Your task to perform on an android device: Find coffee shops on Maps Image 0: 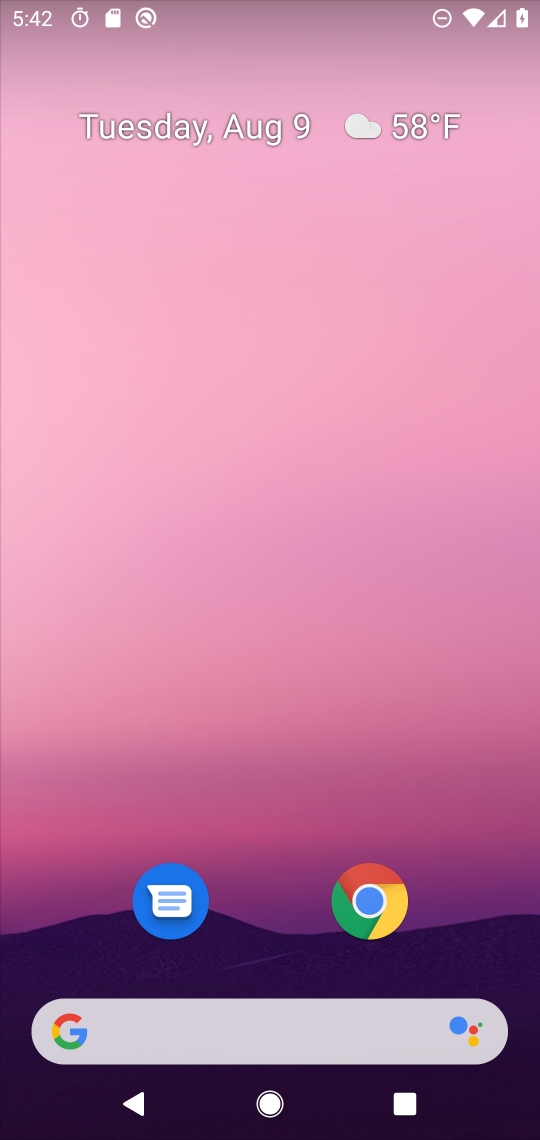
Step 0: press home button
Your task to perform on an android device: Find coffee shops on Maps Image 1: 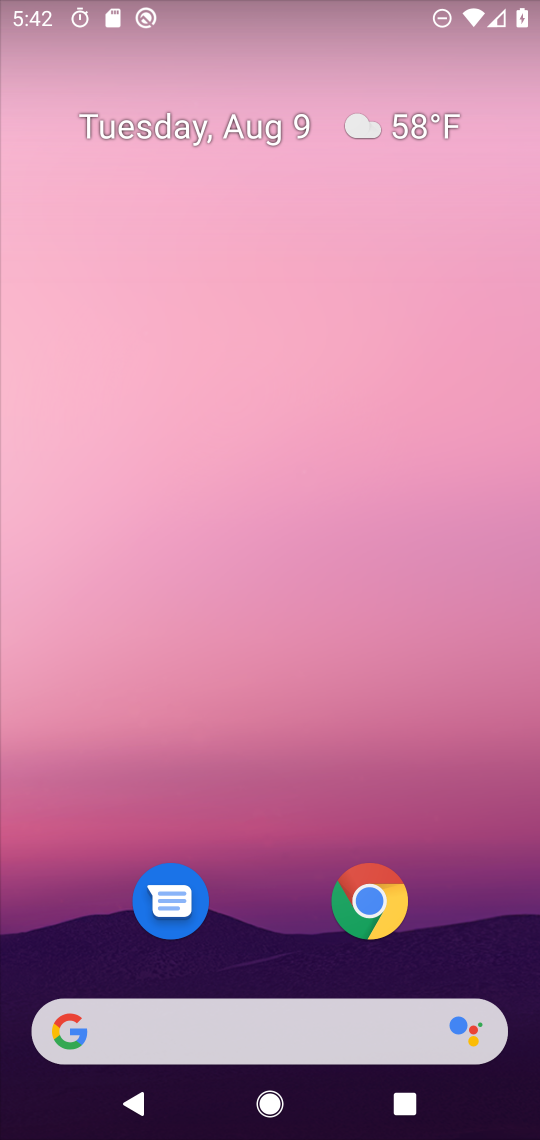
Step 1: drag from (255, 916) to (261, 17)
Your task to perform on an android device: Find coffee shops on Maps Image 2: 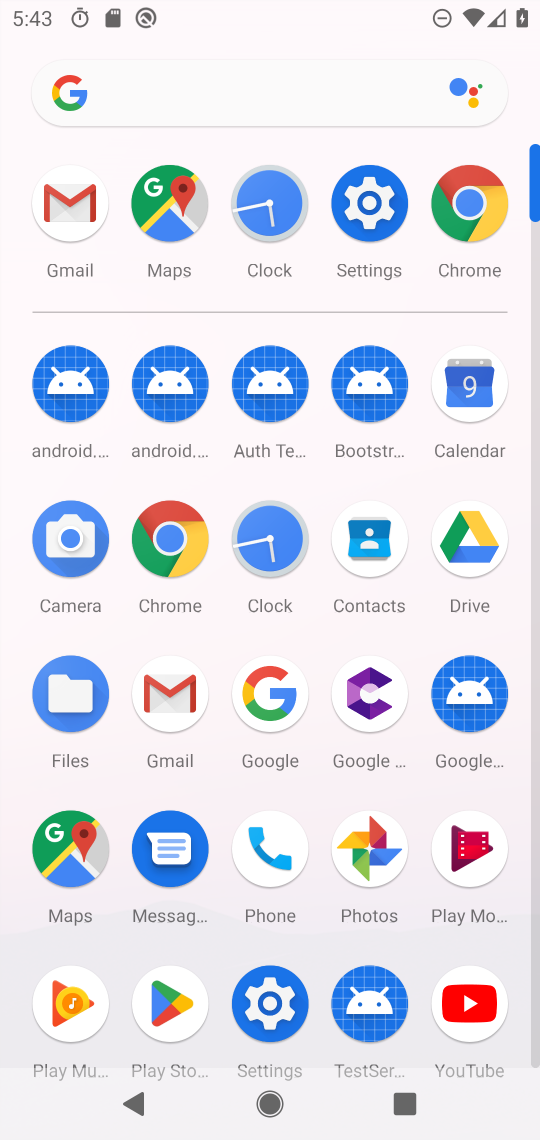
Step 2: click (63, 847)
Your task to perform on an android device: Find coffee shops on Maps Image 3: 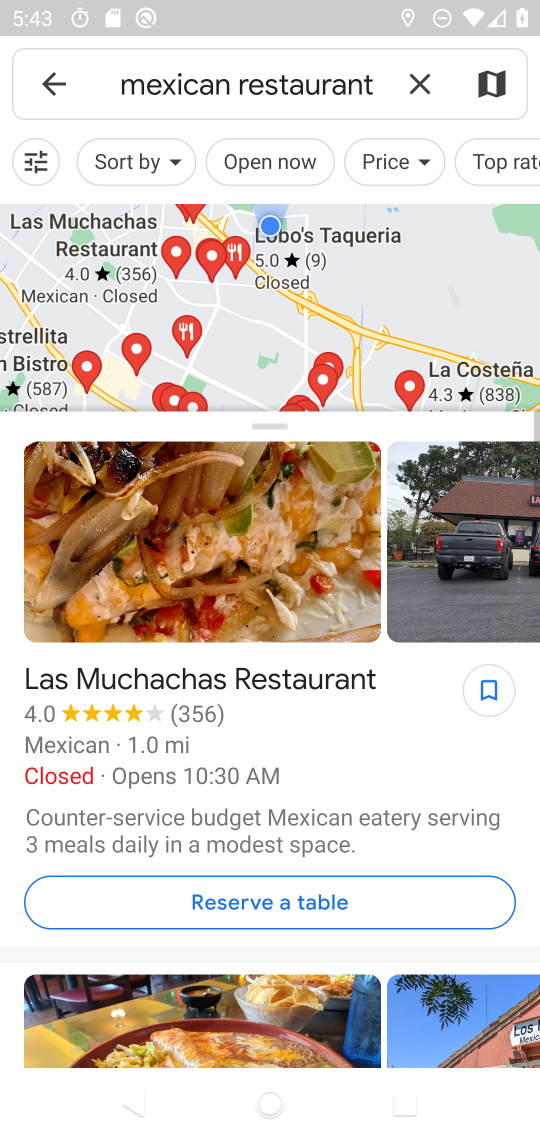
Step 3: click (415, 93)
Your task to perform on an android device: Find coffee shops on Maps Image 4: 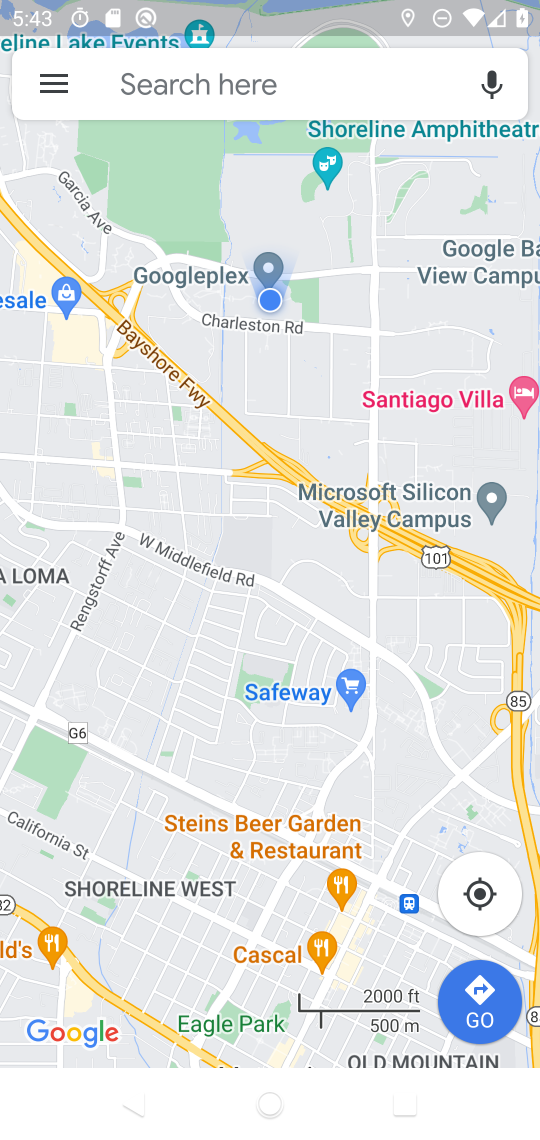
Step 4: click (284, 86)
Your task to perform on an android device: Find coffee shops on Maps Image 5: 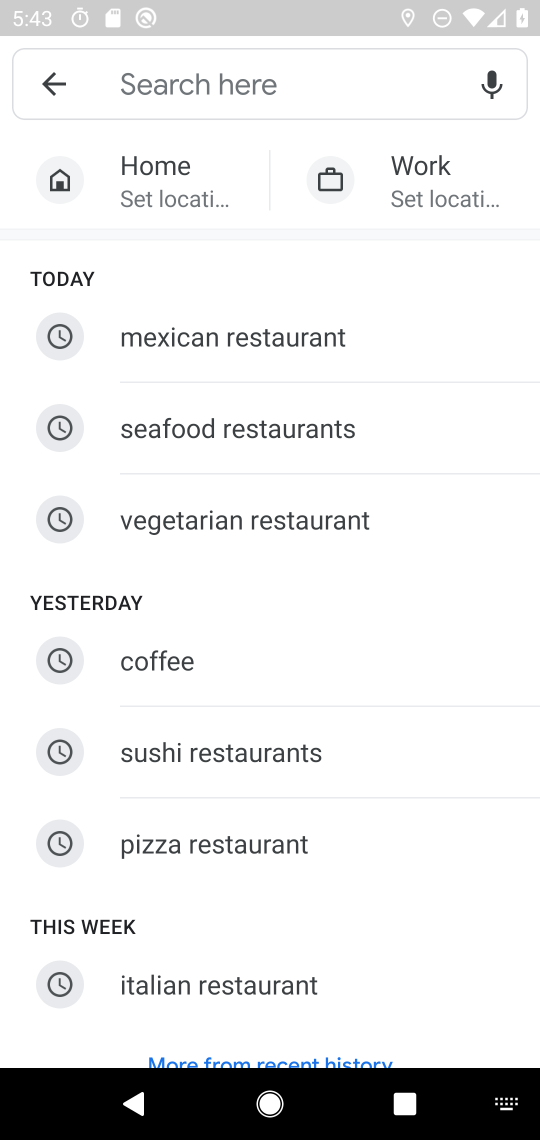
Step 5: type " coffee shops "
Your task to perform on an android device: Find coffee shops on Maps Image 6: 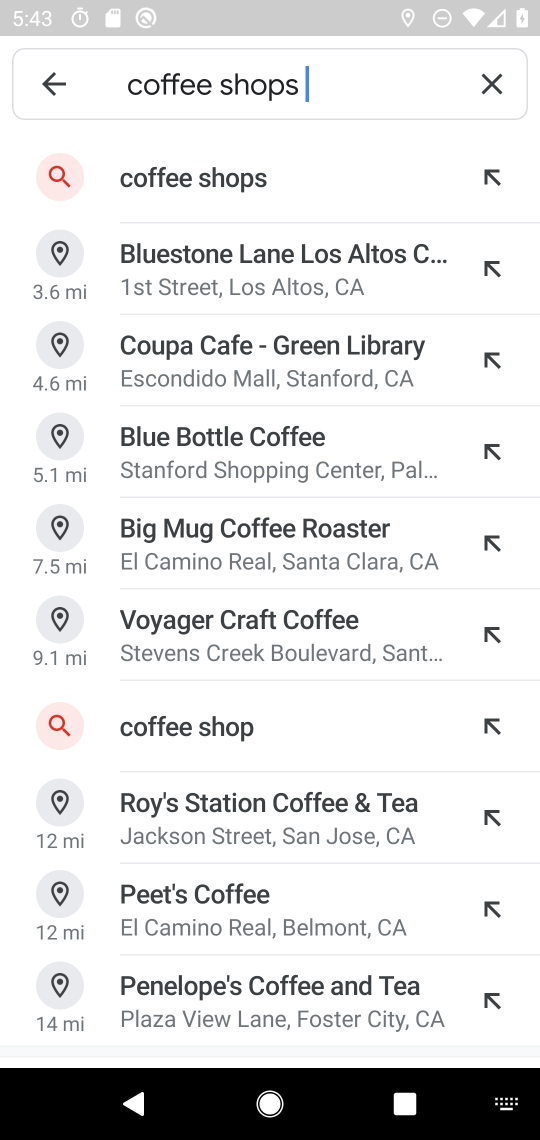
Step 6: click (180, 182)
Your task to perform on an android device: Find coffee shops on Maps Image 7: 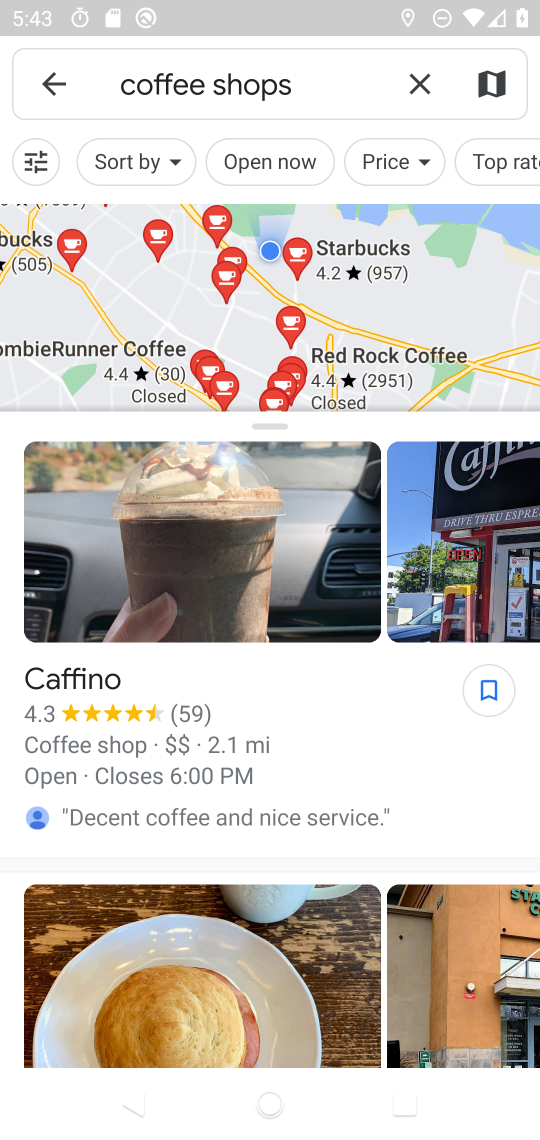
Step 7: task complete